Your task to perform on an android device: add a contact in the contacts app Image 0: 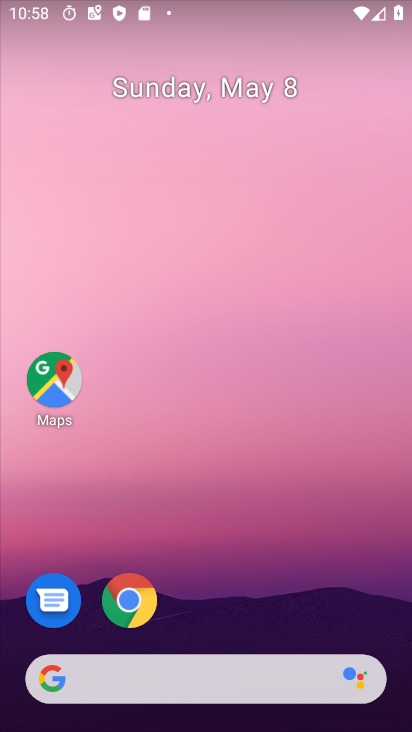
Step 0: drag from (37, 598) to (272, 111)
Your task to perform on an android device: add a contact in the contacts app Image 1: 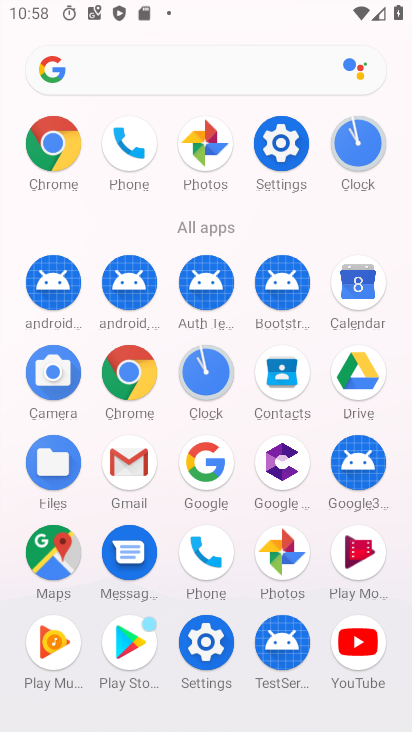
Step 1: click (207, 552)
Your task to perform on an android device: add a contact in the contacts app Image 2: 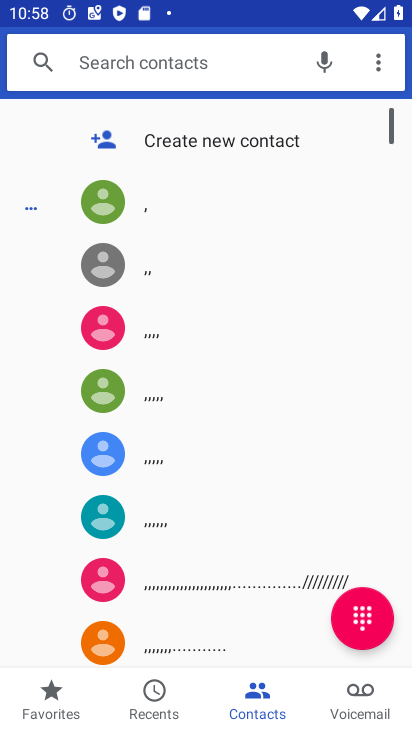
Step 2: click (234, 138)
Your task to perform on an android device: add a contact in the contacts app Image 3: 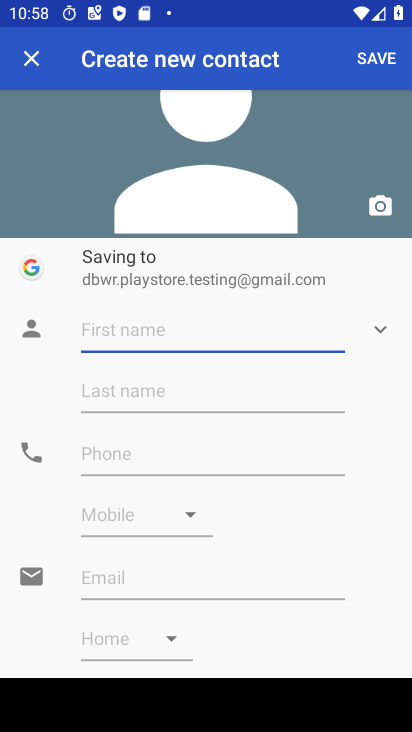
Step 3: click (191, 336)
Your task to perform on an android device: add a contact in the contacts app Image 4: 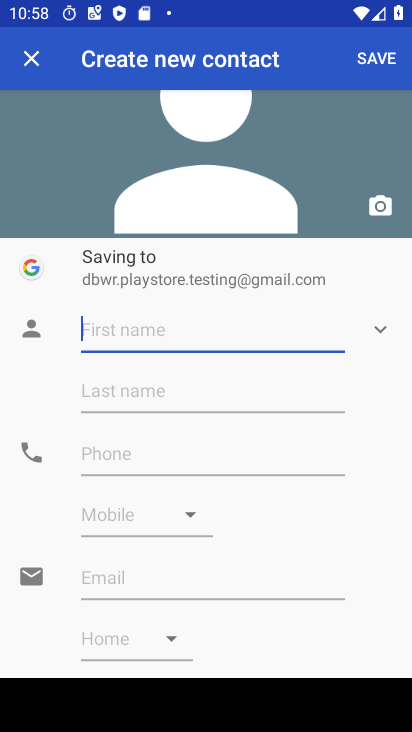
Step 4: type "dfxgfg"
Your task to perform on an android device: add a contact in the contacts app Image 5: 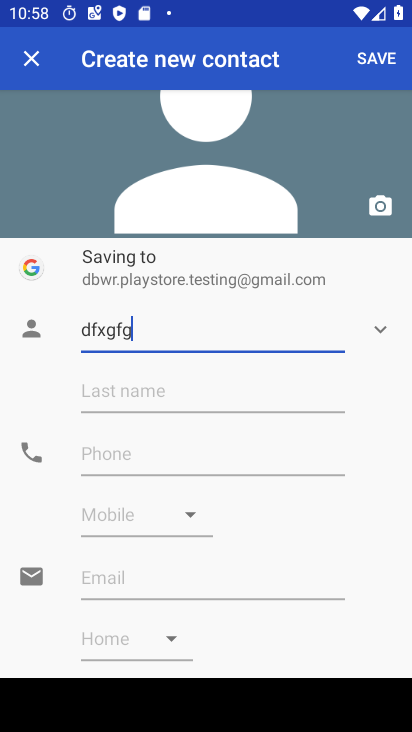
Step 5: type ""
Your task to perform on an android device: add a contact in the contacts app Image 6: 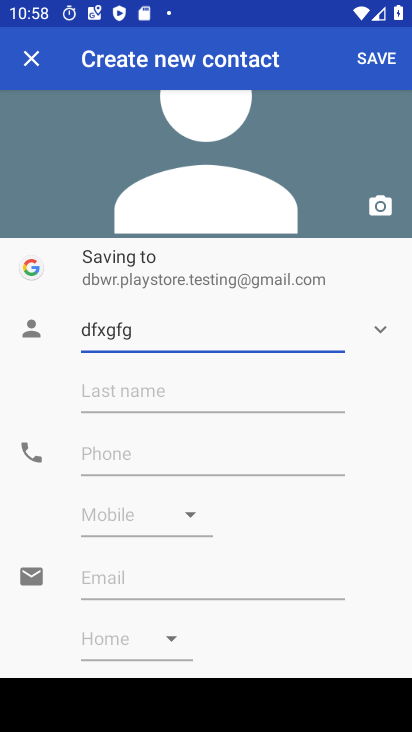
Step 6: click (387, 51)
Your task to perform on an android device: add a contact in the contacts app Image 7: 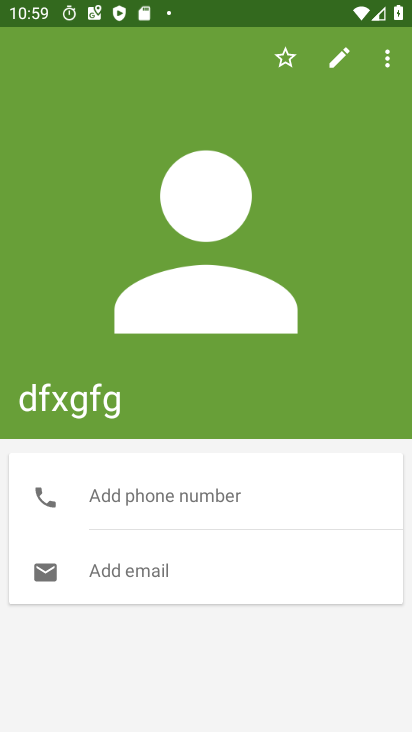
Step 7: task complete